Your task to perform on an android device: add a contact in the contacts app Image 0: 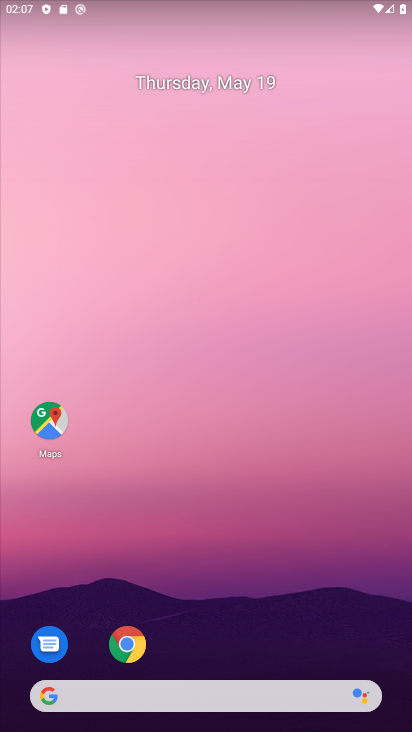
Step 0: drag from (267, 537) to (305, 281)
Your task to perform on an android device: add a contact in the contacts app Image 1: 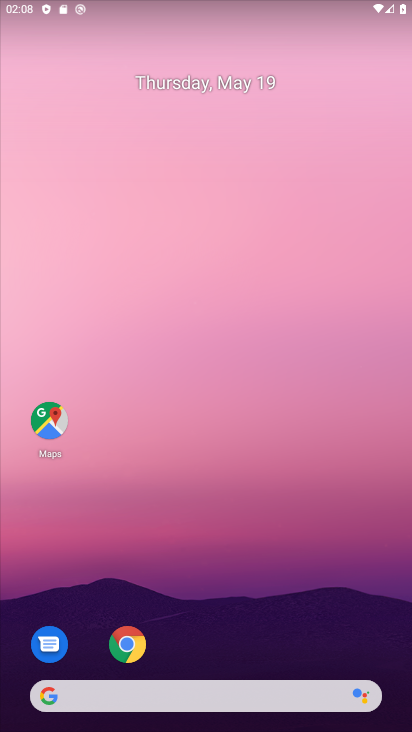
Step 1: drag from (225, 631) to (215, 309)
Your task to perform on an android device: add a contact in the contacts app Image 2: 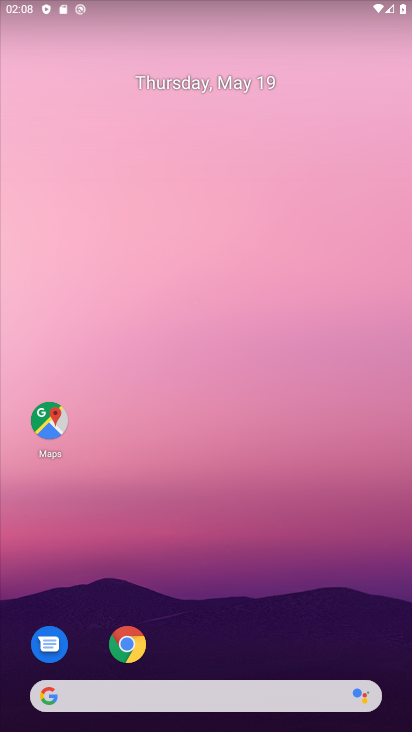
Step 2: drag from (216, 611) to (247, 288)
Your task to perform on an android device: add a contact in the contacts app Image 3: 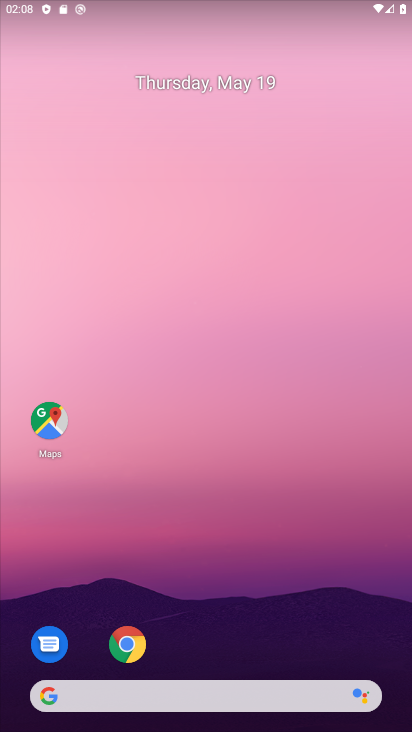
Step 3: drag from (285, 539) to (288, 257)
Your task to perform on an android device: add a contact in the contacts app Image 4: 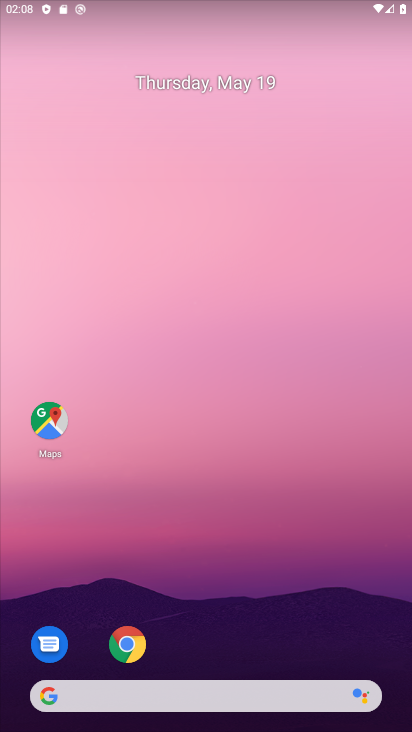
Step 4: drag from (255, 611) to (291, 207)
Your task to perform on an android device: add a contact in the contacts app Image 5: 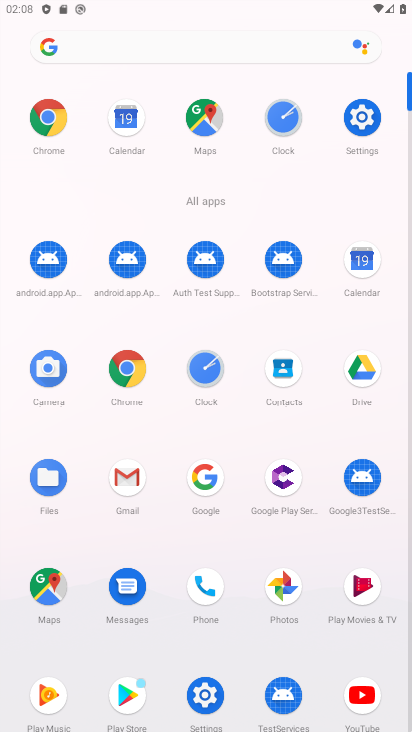
Step 5: click (195, 586)
Your task to perform on an android device: add a contact in the contacts app Image 6: 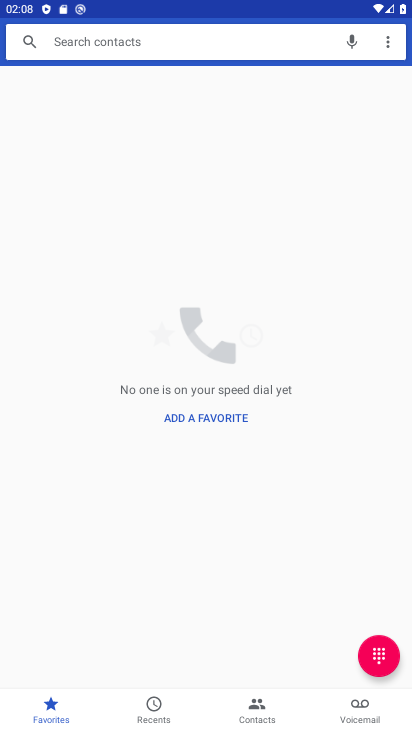
Step 6: click (203, 401)
Your task to perform on an android device: add a contact in the contacts app Image 7: 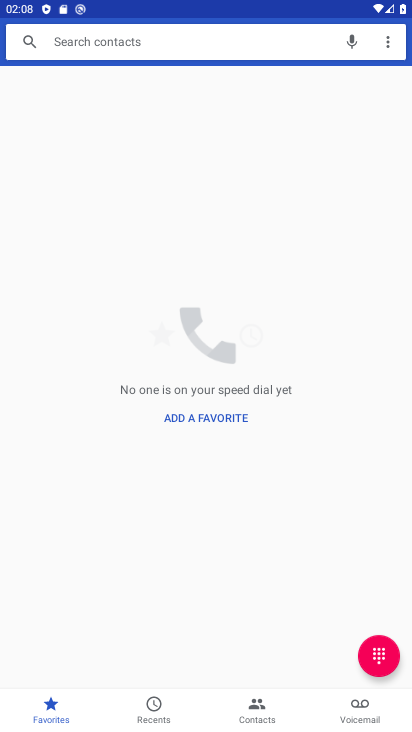
Step 7: click (201, 416)
Your task to perform on an android device: add a contact in the contacts app Image 8: 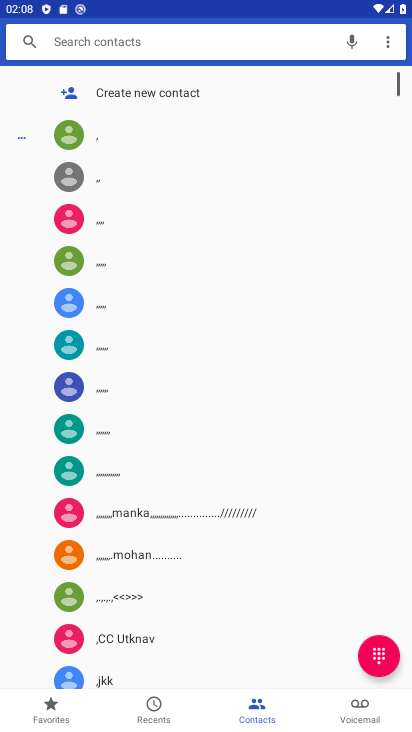
Step 8: click (125, 85)
Your task to perform on an android device: add a contact in the contacts app Image 9: 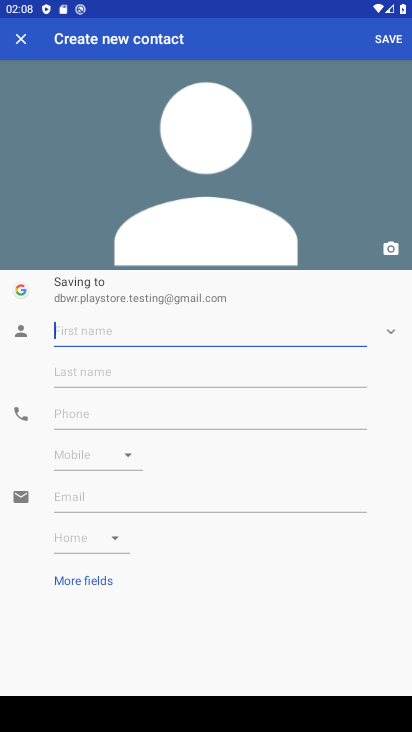
Step 9: click (168, 332)
Your task to perform on an android device: add a contact in the contacts app Image 10: 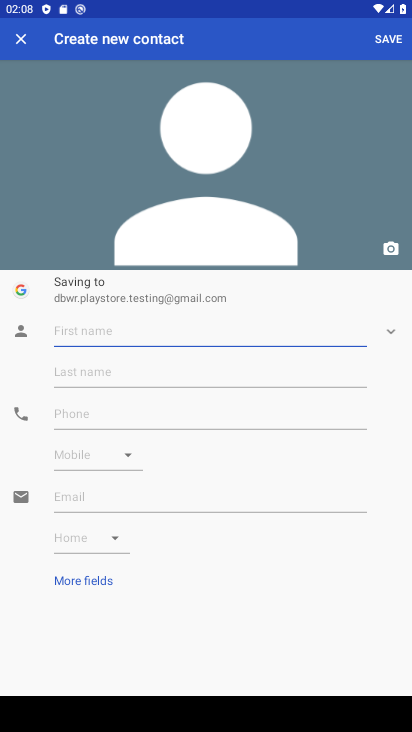
Step 10: type "fffffffffffffff"
Your task to perform on an android device: add a contact in the contacts app Image 11: 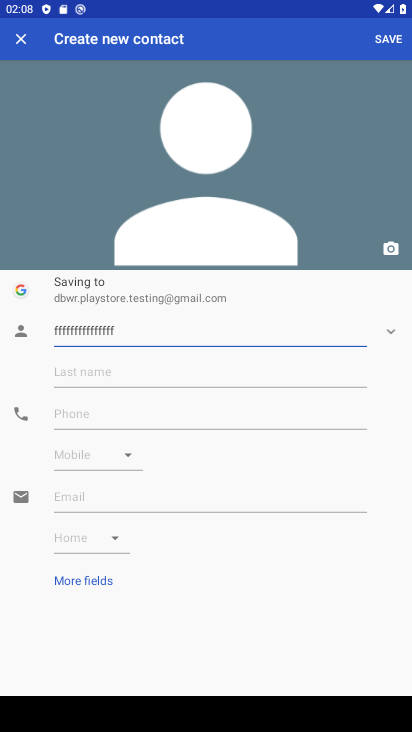
Step 11: click (111, 403)
Your task to perform on an android device: add a contact in the contacts app Image 12: 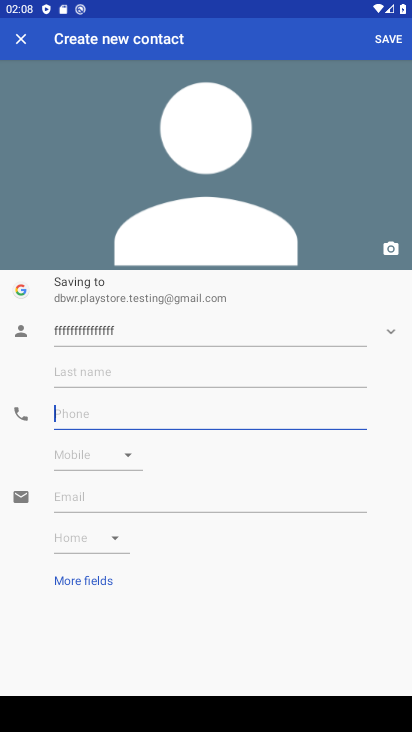
Step 12: type "000000000000009"
Your task to perform on an android device: add a contact in the contacts app Image 13: 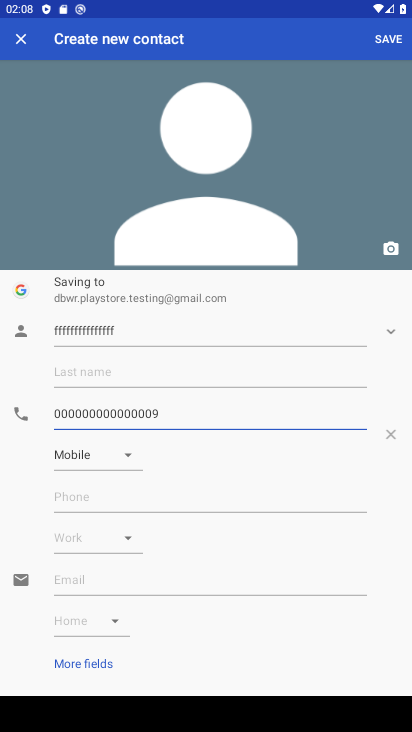
Step 13: click (382, 30)
Your task to perform on an android device: add a contact in the contacts app Image 14: 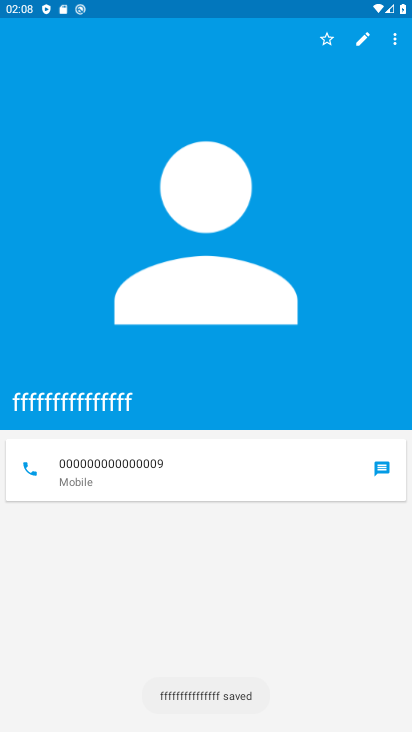
Step 14: task complete